Your task to perform on an android device: Open calendar and show me the first week of next month Image 0: 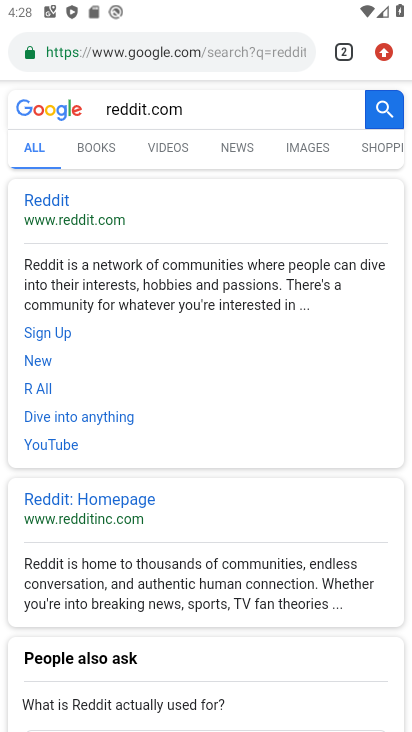
Step 0: press home button
Your task to perform on an android device: Open calendar and show me the first week of next month Image 1: 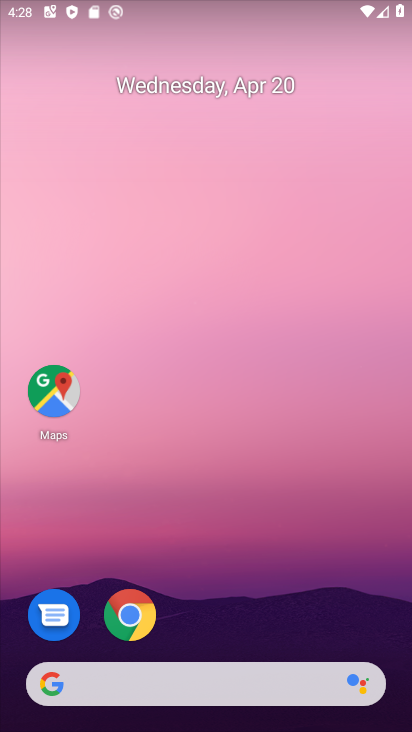
Step 1: drag from (211, 620) to (269, 67)
Your task to perform on an android device: Open calendar and show me the first week of next month Image 2: 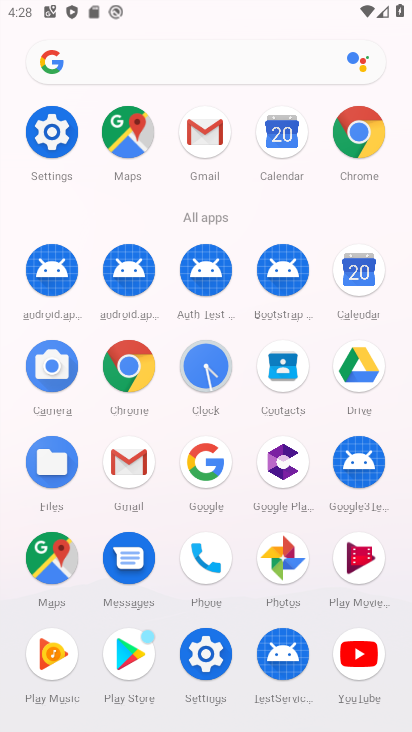
Step 2: click (362, 274)
Your task to perform on an android device: Open calendar and show me the first week of next month Image 3: 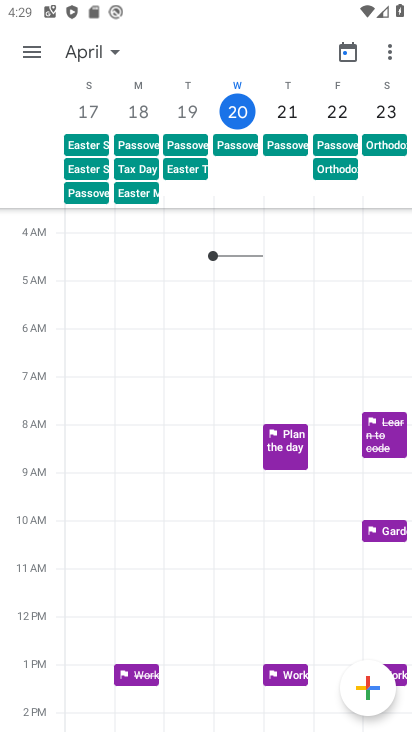
Step 3: task complete